Your task to perform on an android device: What is the recent news? Image 0: 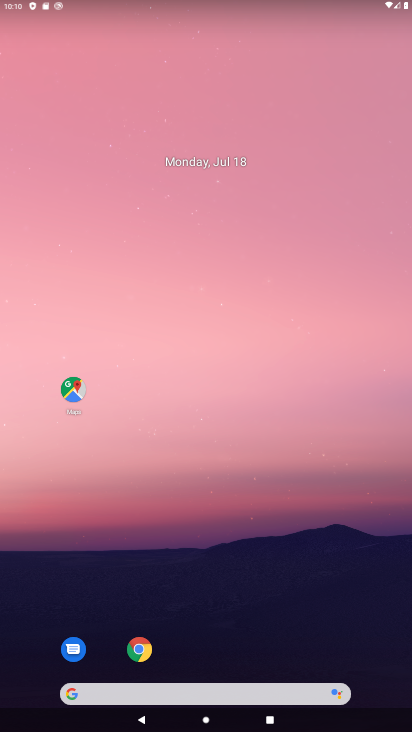
Step 0: drag from (22, 299) to (388, 338)
Your task to perform on an android device: What is the recent news? Image 1: 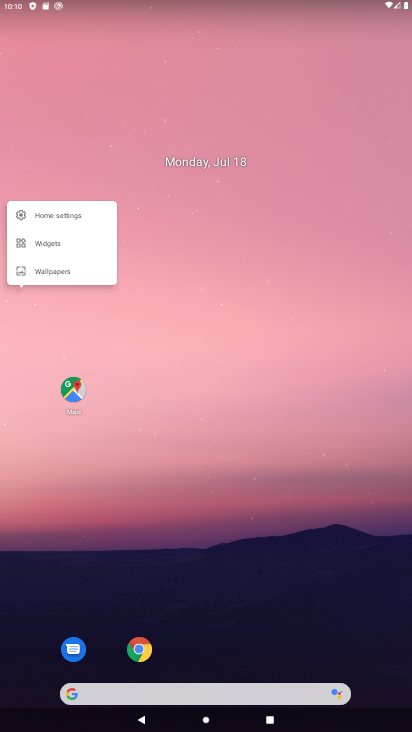
Step 1: click (158, 365)
Your task to perform on an android device: What is the recent news? Image 2: 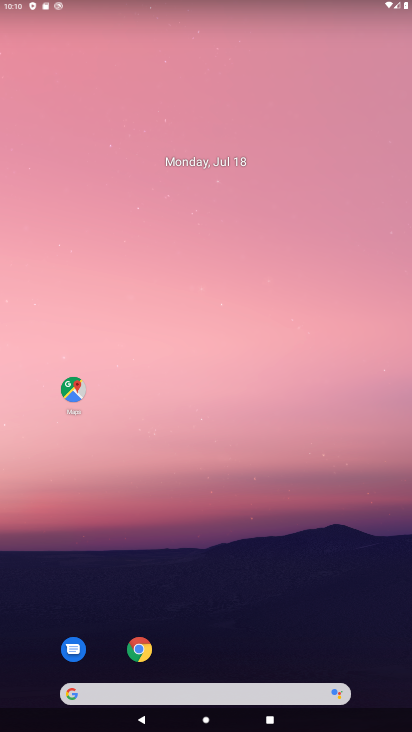
Step 2: drag from (8, 287) to (364, 301)
Your task to perform on an android device: What is the recent news? Image 3: 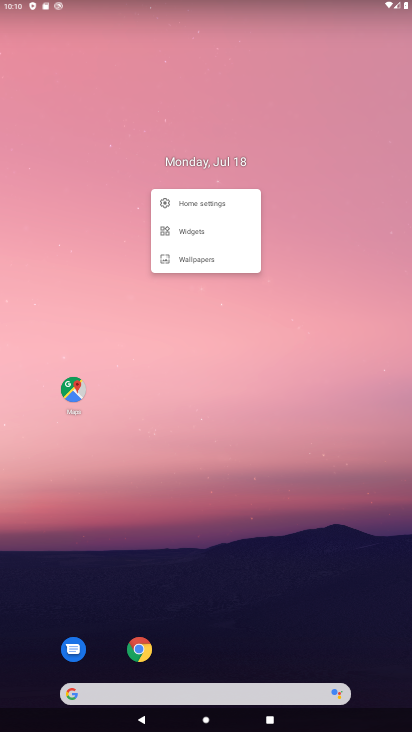
Step 3: click (279, 327)
Your task to perform on an android device: What is the recent news? Image 4: 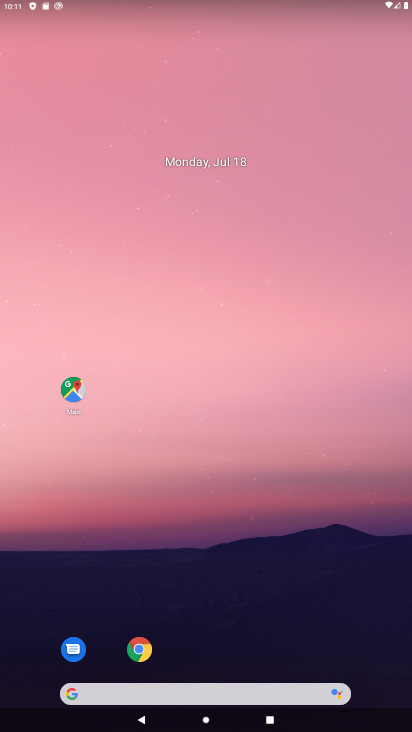
Step 4: task complete